Your task to perform on an android device: Search for the Nintendo Switch. Image 0: 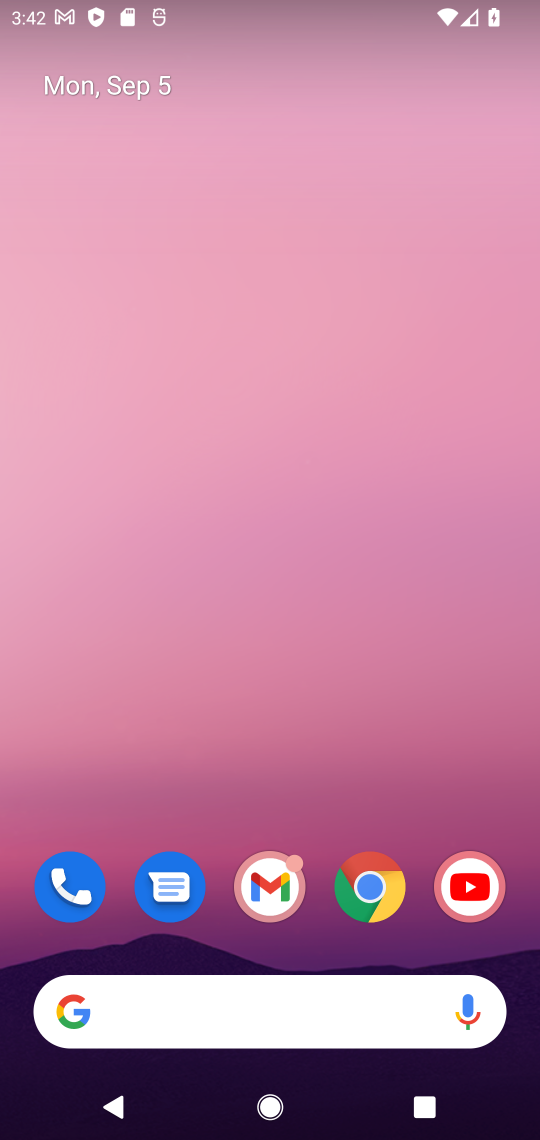
Step 0: drag from (396, 353) to (407, 117)
Your task to perform on an android device: Search for the Nintendo Switch. Image 1: 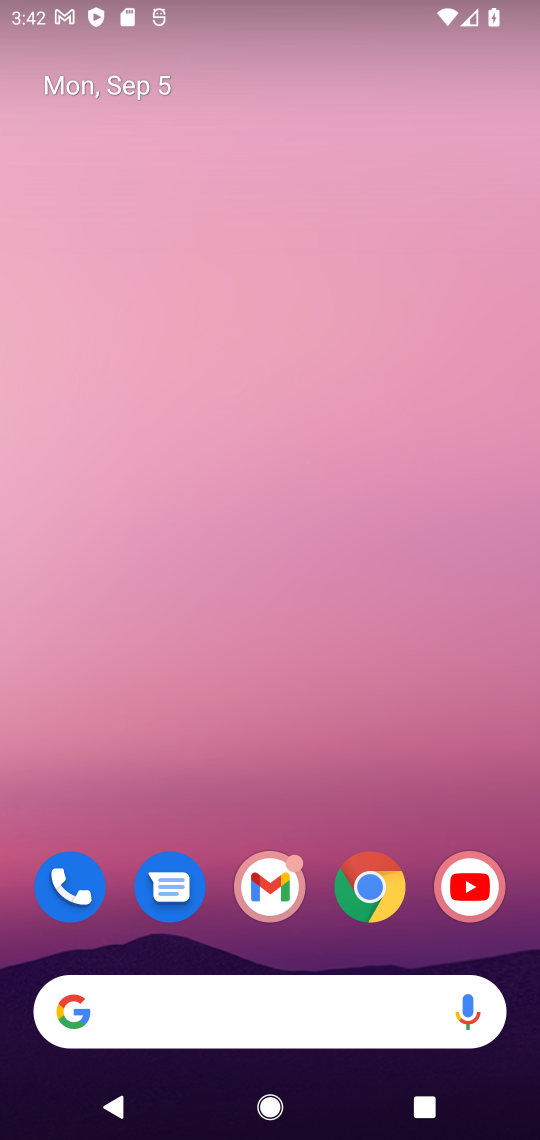
Step 1: drag from (277, 178) to (277, 62)
Your task to perform on an android device: Search for the Nintendo Switch. Image 2: 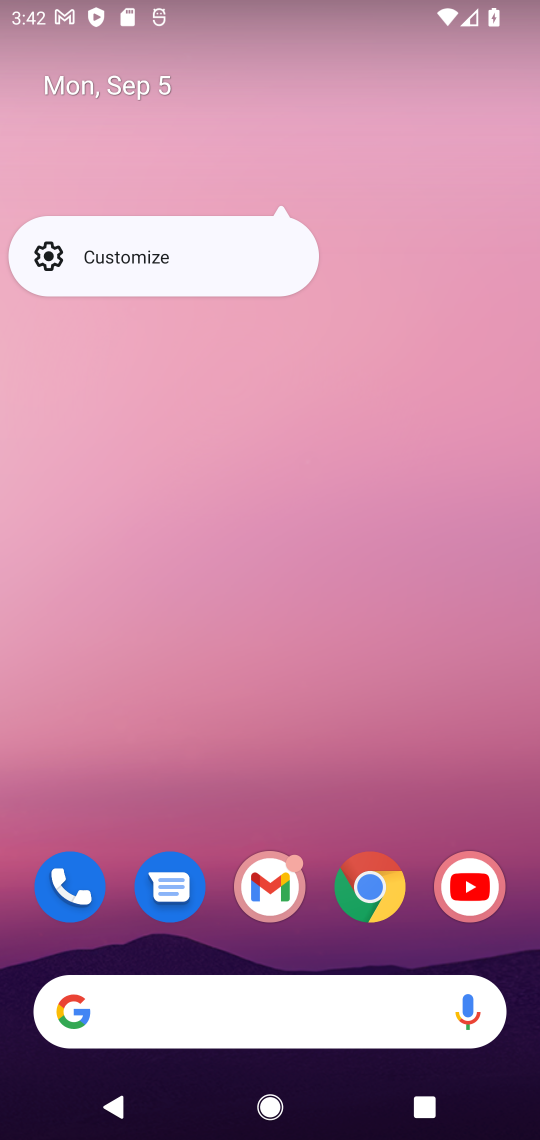
Step 2: click (357, 709)
Your task to perform on an android device: Search for the Nintendo Switch. Image 3: 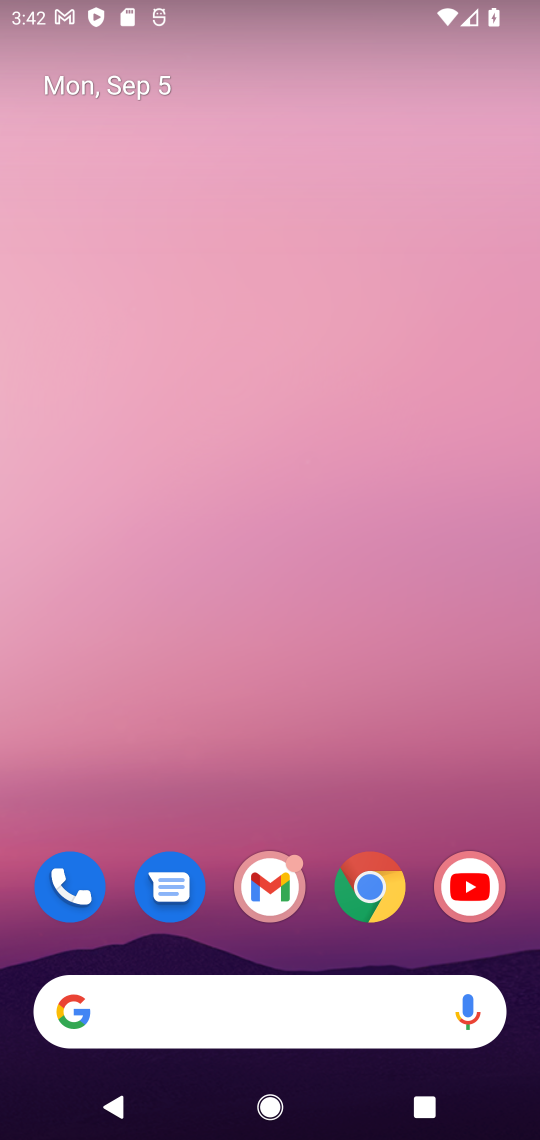
Step 3: drag from (311, 766) to (292, 35)
Your task to perform on an android device: Search for the Nintendo Switch. Image 4: 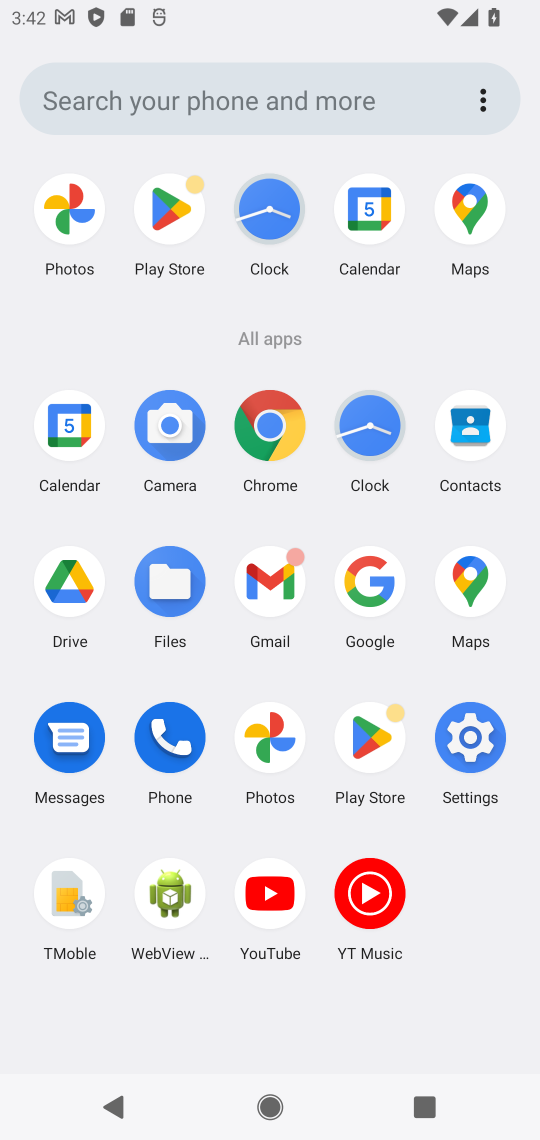
Step 4: click (280, 430)
Your task to perform on an android device: Search for the Nintendo Switch. Image 5: 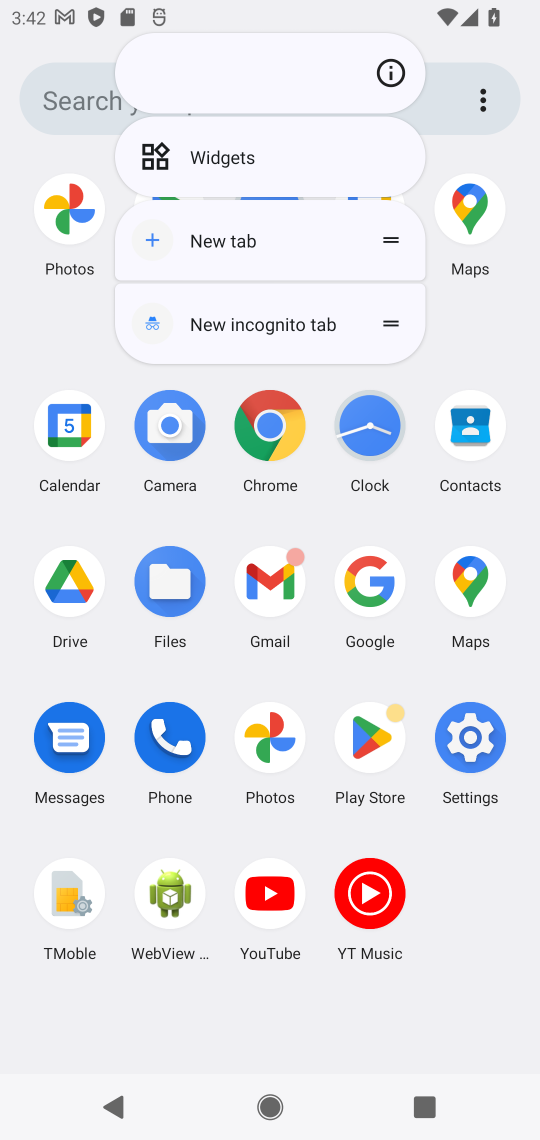
Step 5: click (266, 423)
Your task to perform on an android device: Search for the Nintendo Switch. Image 6: 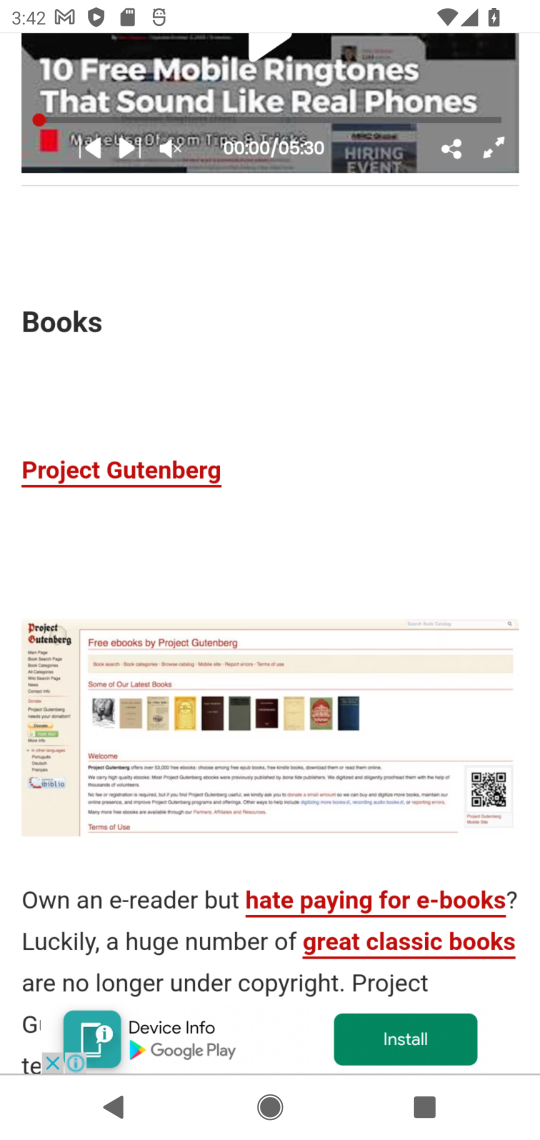
Step 6: drag from (374, 239) to (421, 800)
Your task to perform on an android device: Search for the Nintendo Switch. Image 7: 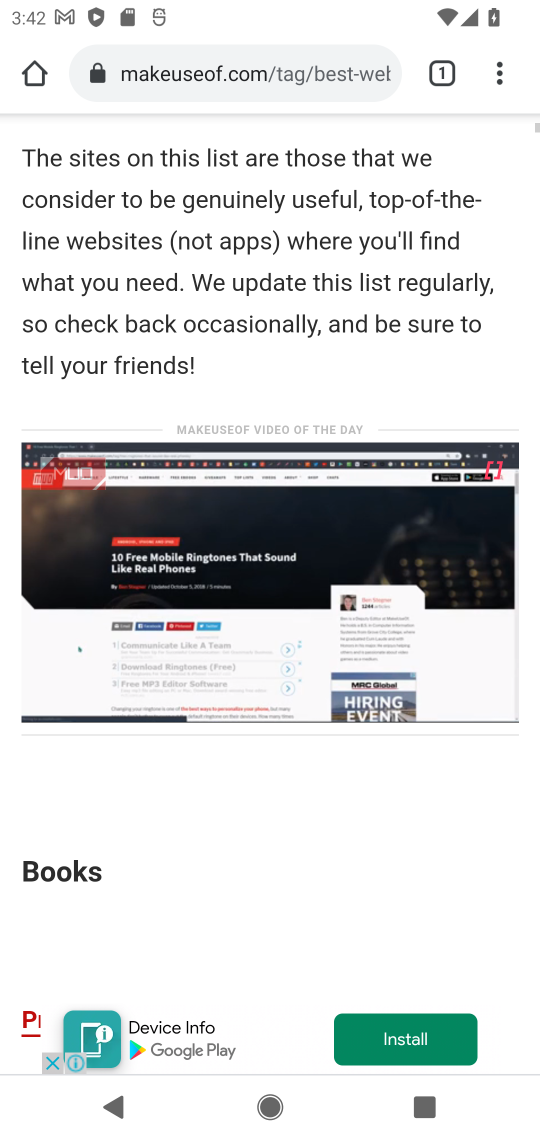
Step 7: click (259, 66)
Your task to perform on an android device: Search for the Nintendo Switch. Image 8: 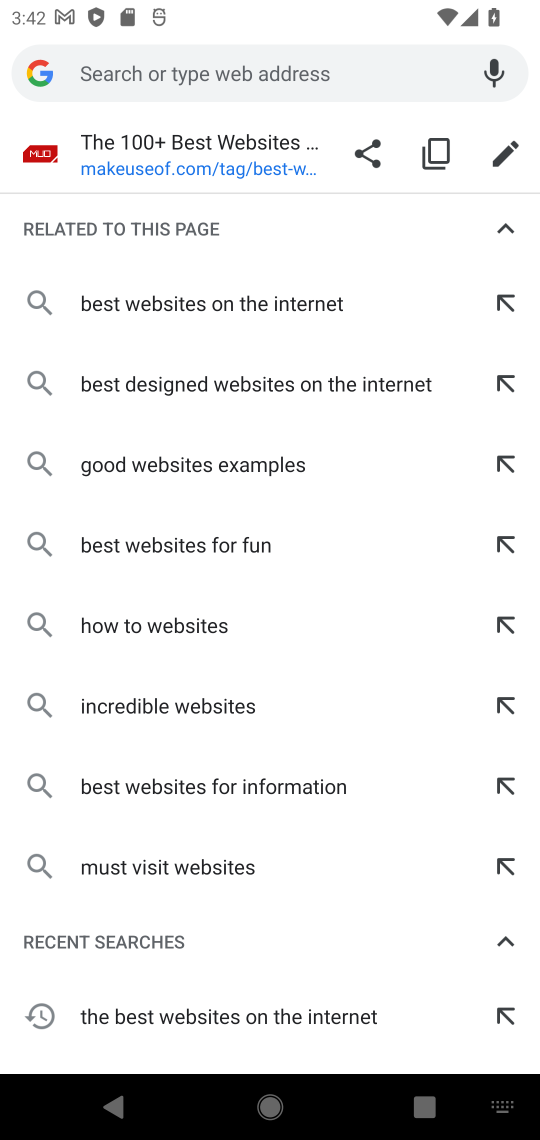
Step 8: type "Nintendo Switch"
Your task to perform on an android device: Search for the Nintendo Switch. Image 9: 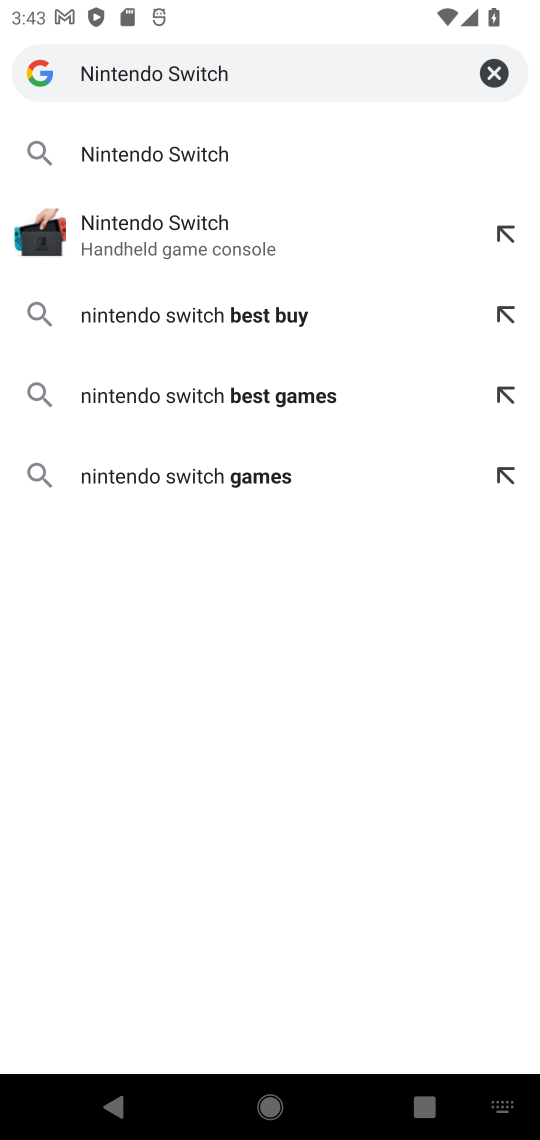
Step 9: press enter
Your task to perform on an android device: Search for the Nintendo Switch. Image 10: 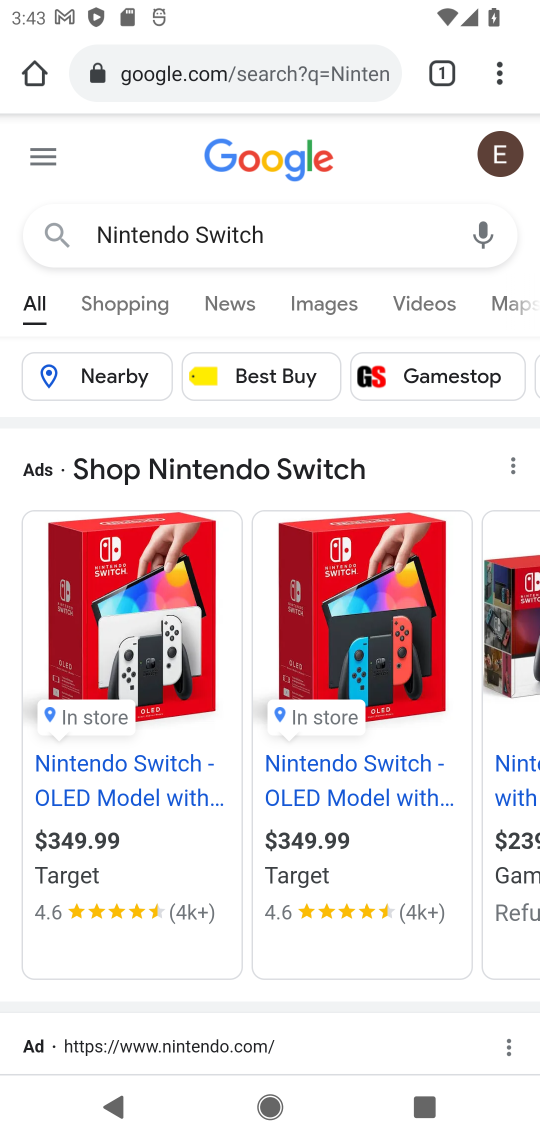
Step 10: drag from (307, 935) to (284, 0)
Your task to perform on an android device: Search for the Nintendo Switch. Image 11: 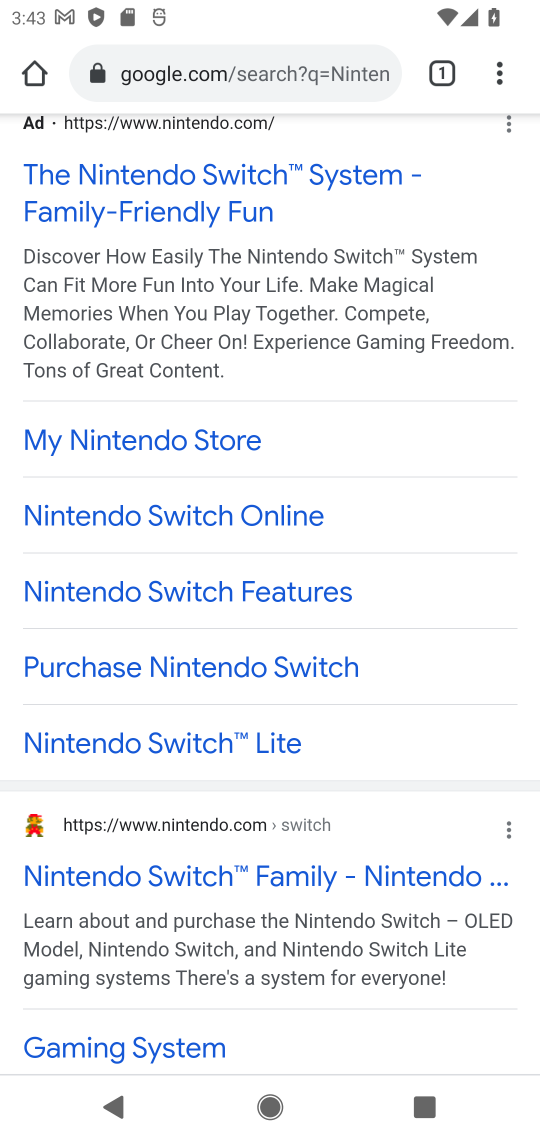
Step 11: click (257, 884)
Your task to perform on an android device: Search for the Nintendo Switch. Image 12: 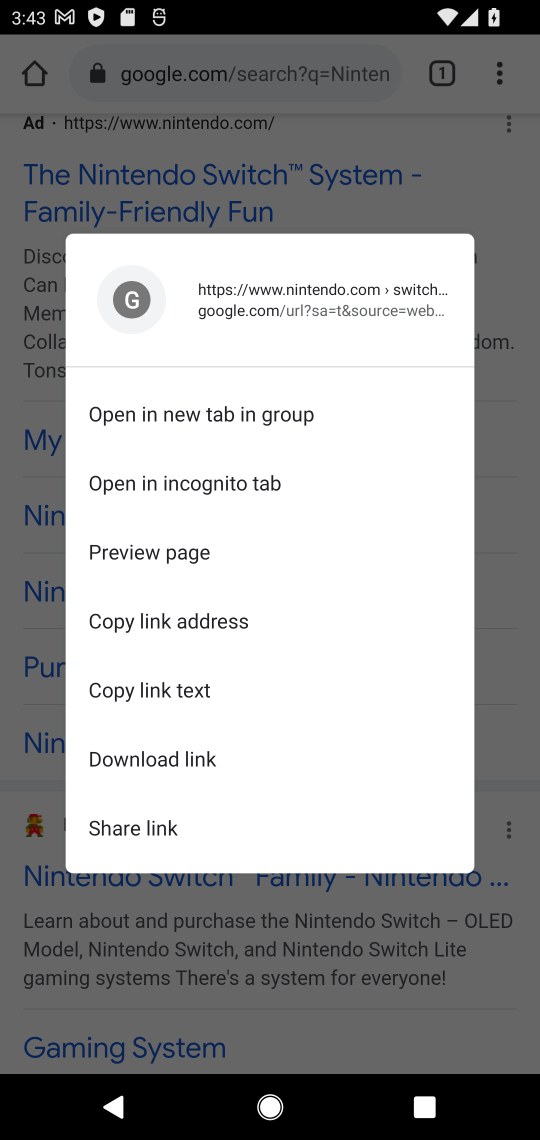
Step 12: click (236, 902)
Your task to perform on an android device: Search for the Nintendo Switch. Image 13: 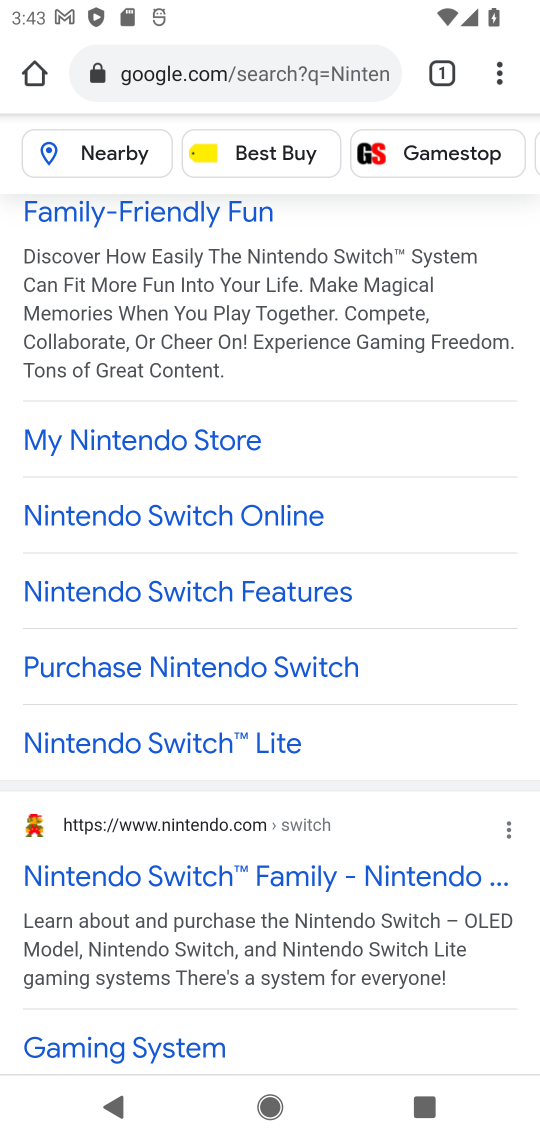
Step 13: click (100, 864)
Your task to perform on an android device: Search for the Nintendo Switch. Image 14: 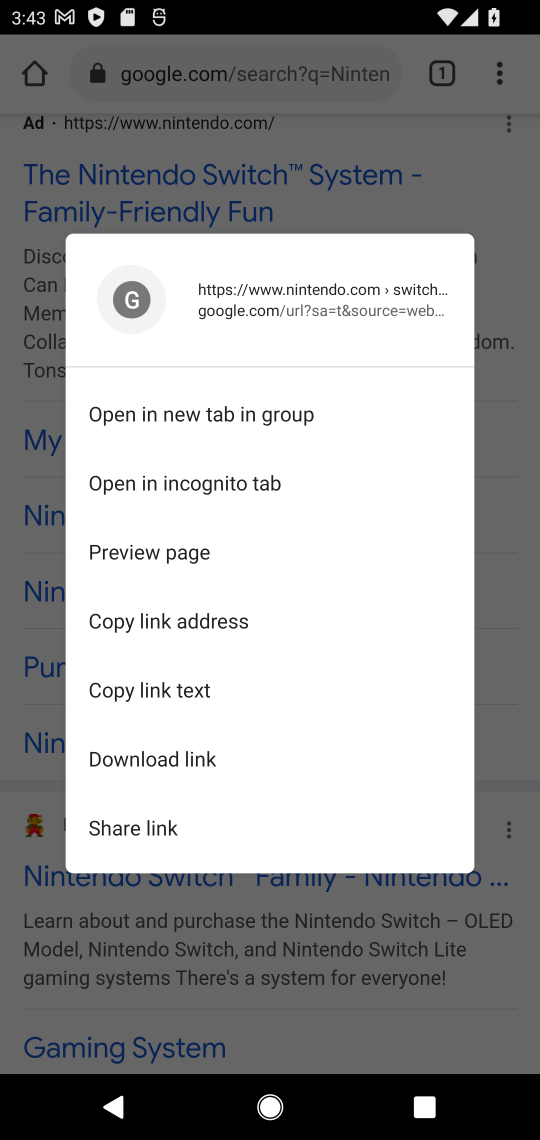
Step 14: click (149, 916)
Your task to perform on an android device: Search for the Nintendo Switch. Image 15: 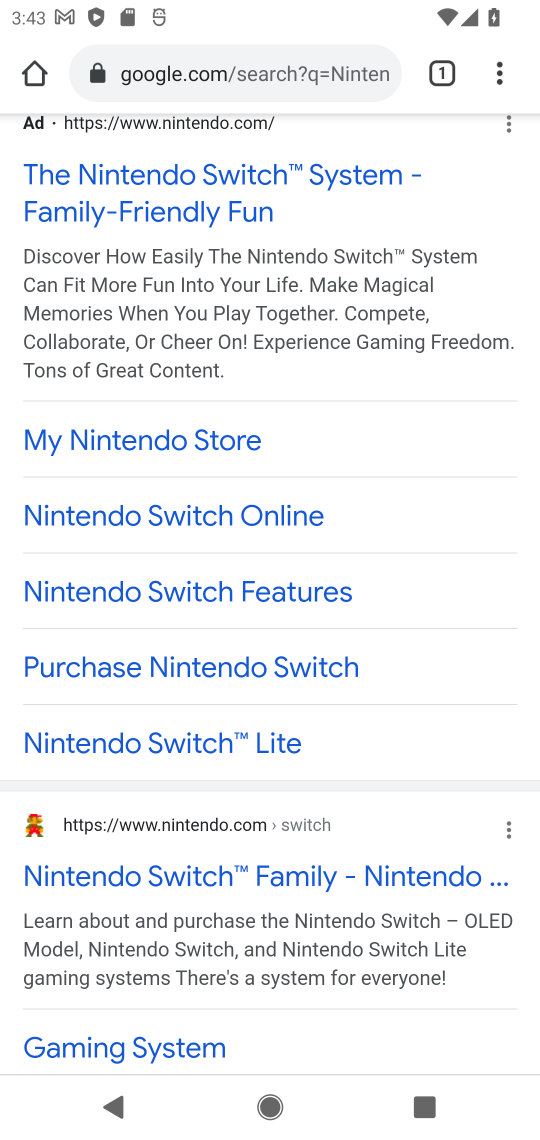
Step 15: click (147, 872)
Your task to perform on an android device: Search for the Nintendo Switch. Image 16: 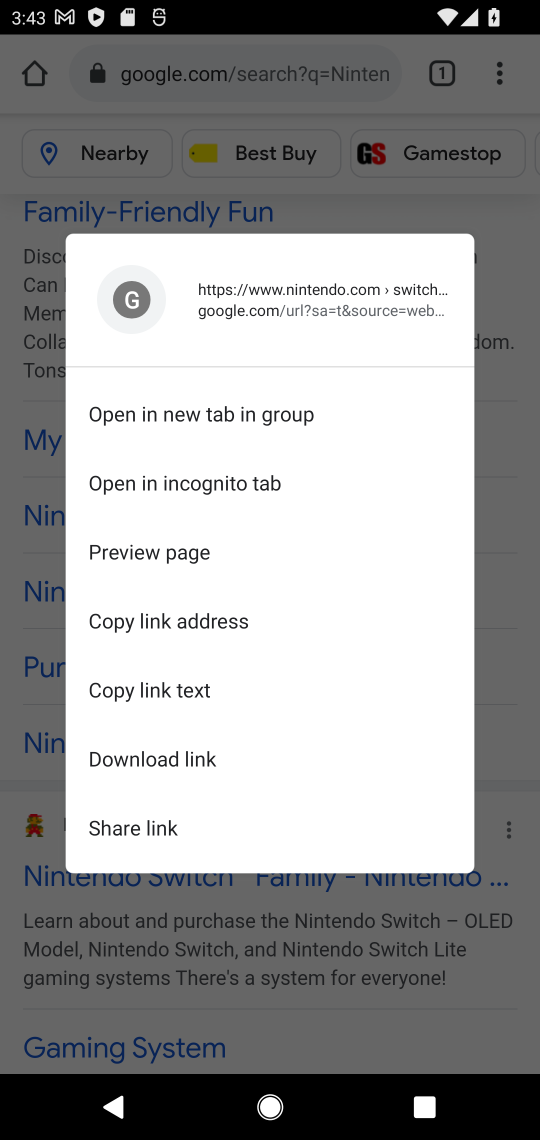
Step 16: click (313, 941)
Your task to perform on an android device: Search for the Nintendo Switch. Image 17: 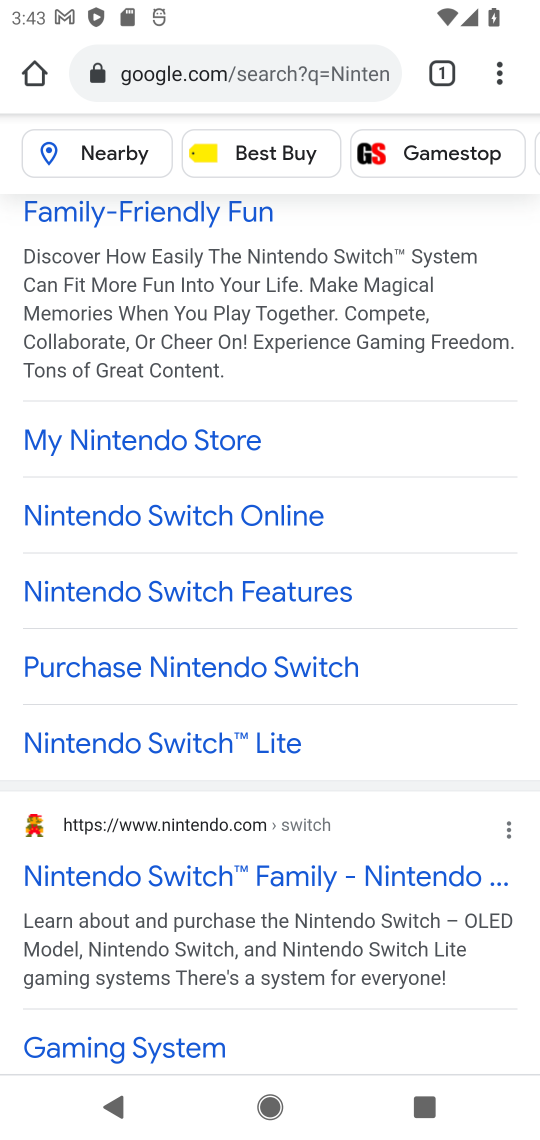
Step 17: click (169, 885)
Your task to perform on an android device: Search for the Nintendo Switch. Image 18: 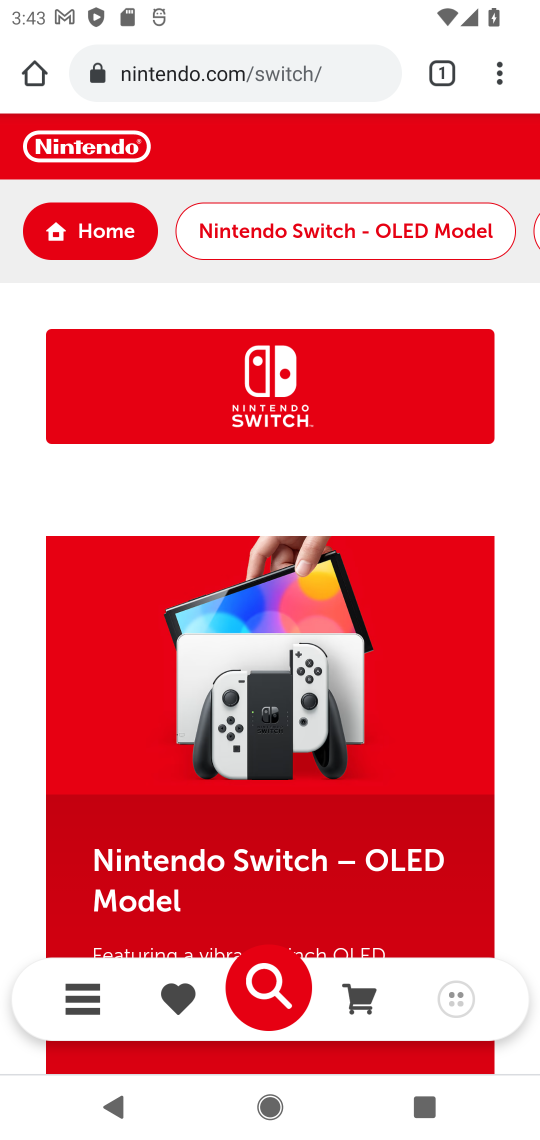
Step 18: task complete